Your task to perform on an android device: Go to settings Image 0: 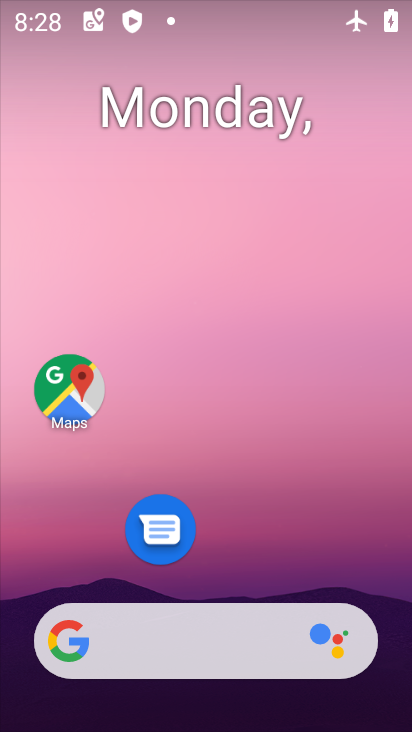
Step 0: drag from (239, 574) to (239, 207)
Your task to perform on an android device: Go to settings Image 1: 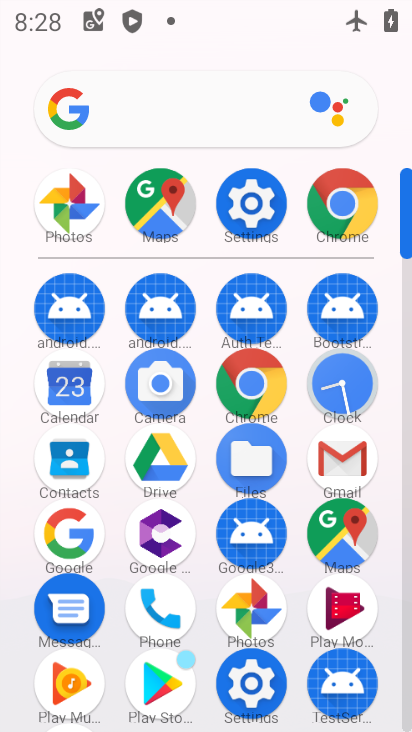
Step 1: click (239, 207)
Your task to perform on an android device: Go to settings Image 2: 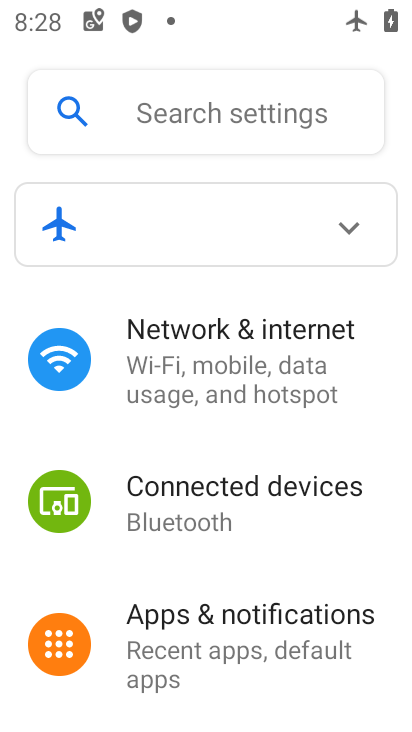
Step 2: task complete